Your task to perform on an android device: Open privacy settings Image 0: 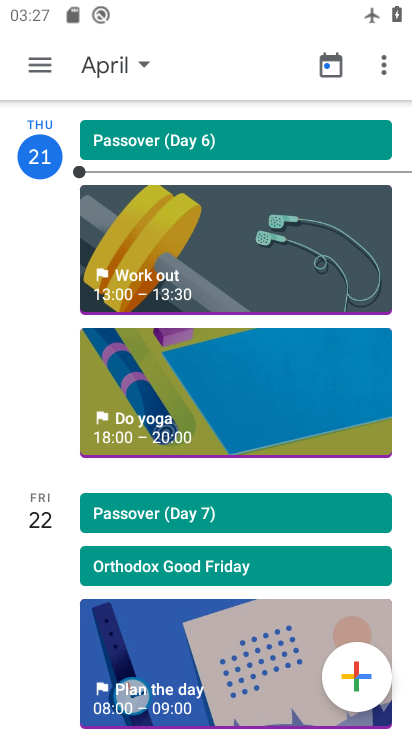
Step 0: press home button
Your task to perform on an android device: Open privacy settings Image 1: 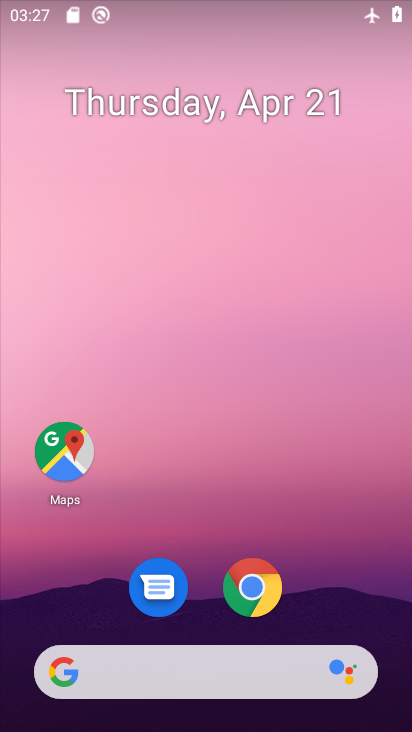
Step 1: drag from (339, 601) to (351, 122)
Your task to perform on an android device: Open privacy settings Image 2: 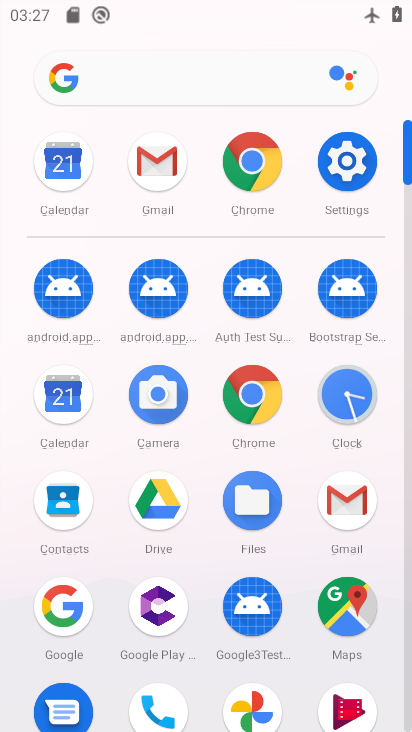
Step 2: click (361, 168)
Your task to perform on an android device: Open privacy settings Image 3: 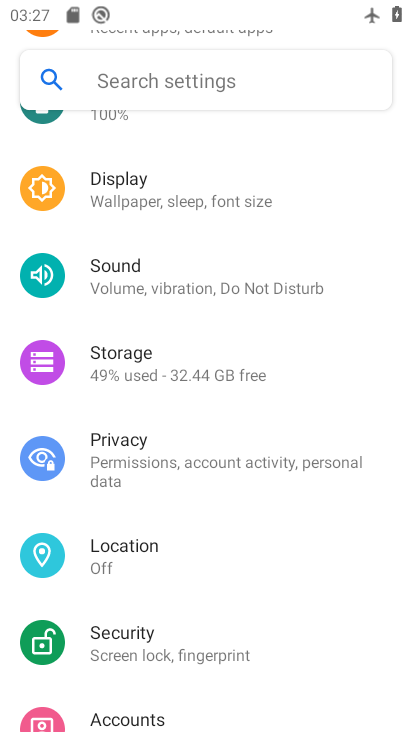
Step 3: drag from (372, 275) to (369, 456)
Your task to perform on an android device: Open privacy settings Image 4: 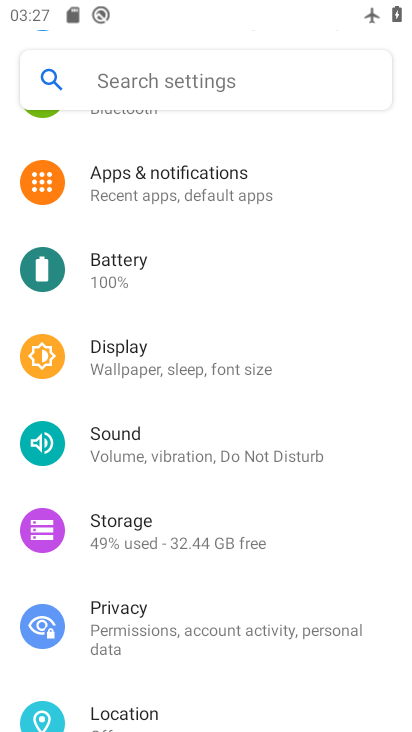
Step 4: drag from (362, 234) to (365, 438)
Your task to perform on an android device: Open privacy settings Image 5: 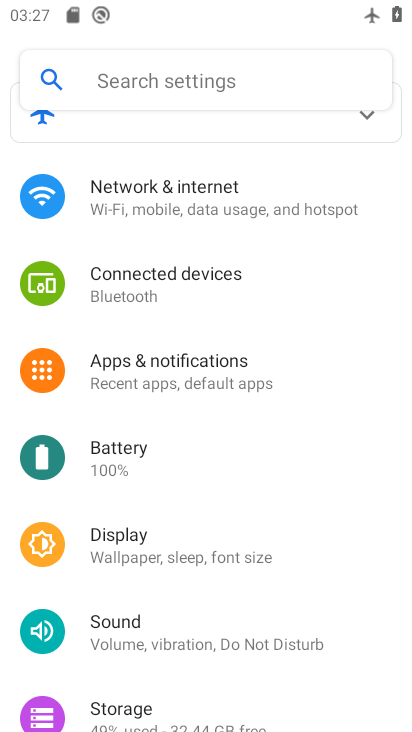
Step 5: drag from (363, 280) to (366, 446)
Your task to perform on an android device: Open privacy settings Image 6: 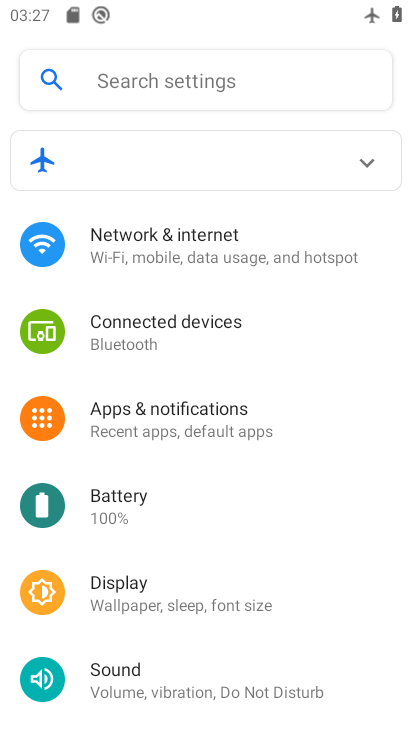
Step 6: drag from (355, 541) to (359, 369)
Your task to perform on an android device: Open privacy settings Image 7: 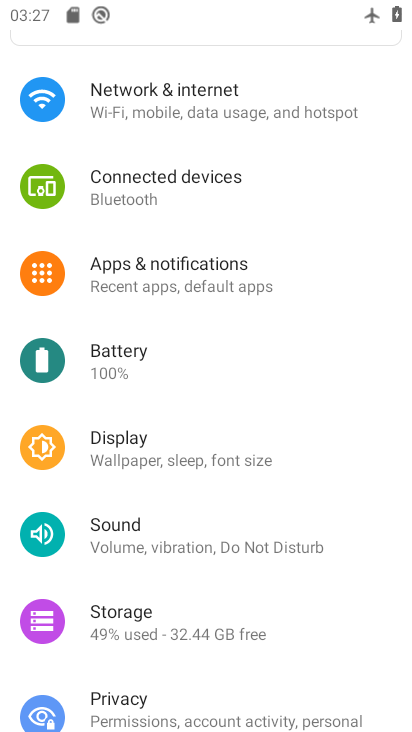
Step 7: drag from (353, 572) to (347, 377)
Your task to perform on an android device: Open privacy settings Image 8: 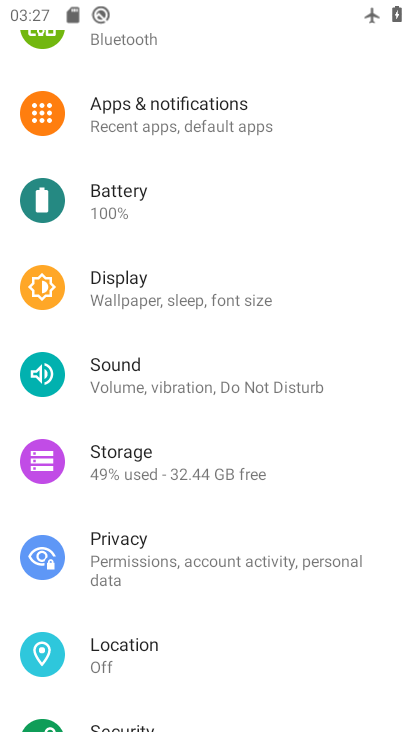
Step 8: drag from (341, 634) to (367, 451)
Your task to perform on an android device: Open privacy settings Image 9: 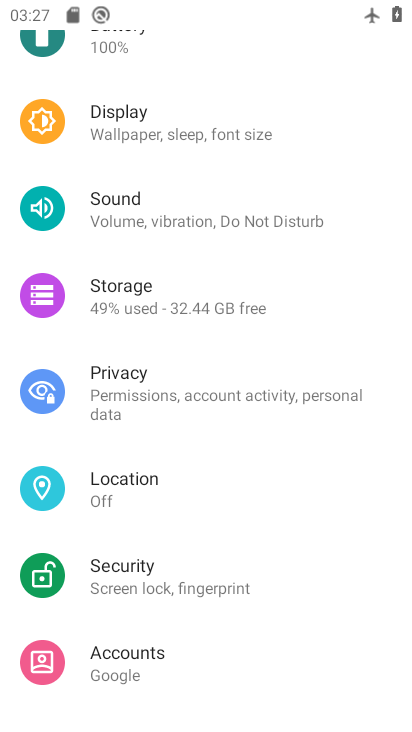
Step 9: drag from (364, 595) to (363, 431)
Your task to perform on an android device: Open privacy settings Image 10: 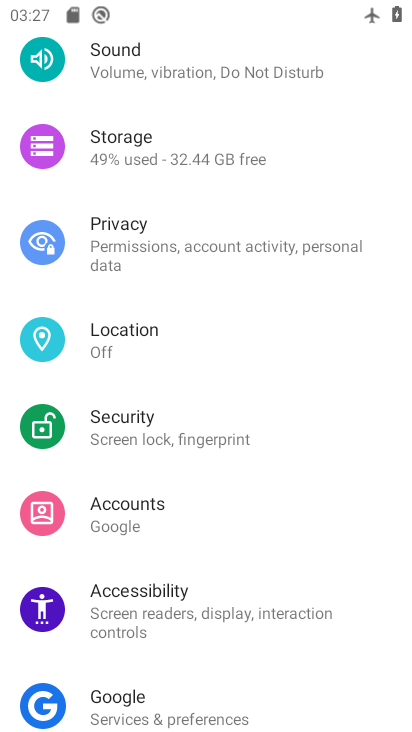
Step 10: drag from (353, 644) to (359, 431)
Your task to perform on an android device: Open privacy settings Image 11: 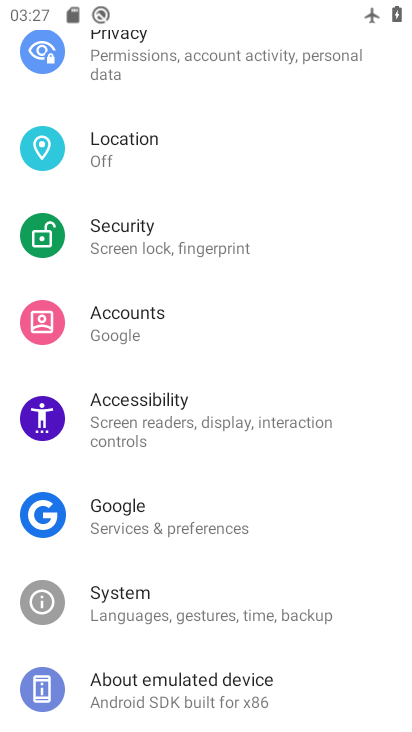
Step 11: drag from (354, 660) to (365, 489)
Your task to perform on an android device: Open privacy settings Image 12: 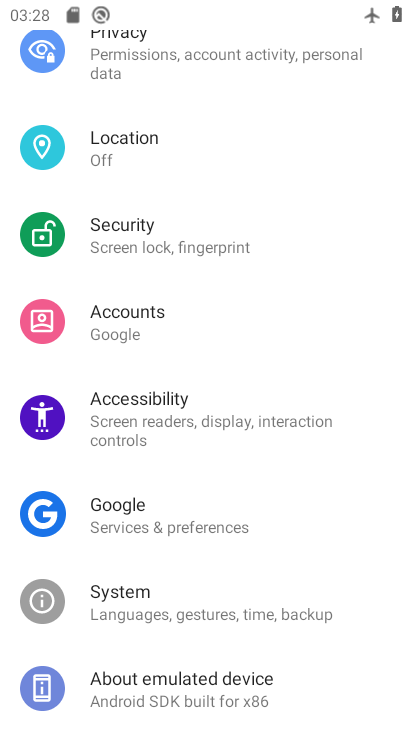
Step 12: drag from (370, 338) to (372, 486)
Your task to perform on an android device: Open privacy settings Image 13: 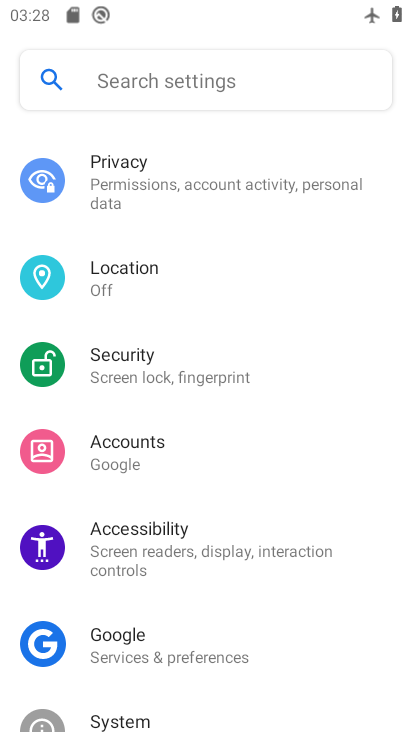
Step 13: drag from (365, 307) to (365, 471)
Your task to perform on an android device: Open privacy settings Image 14: 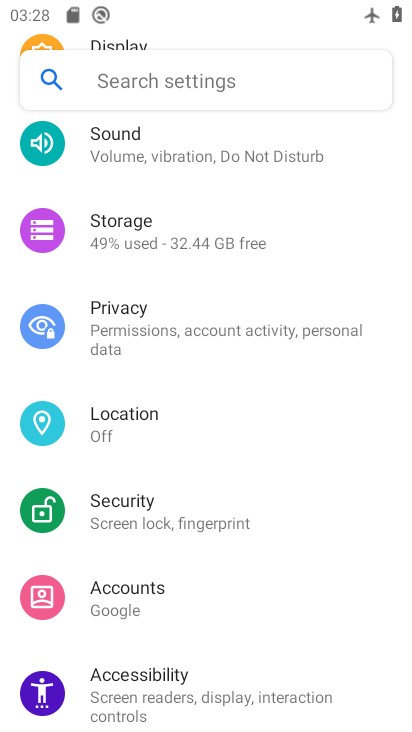
Step 14: drag from (376, 281) to (358, 514)
Your task to perform on an android device: Open privacy settings Image 15: 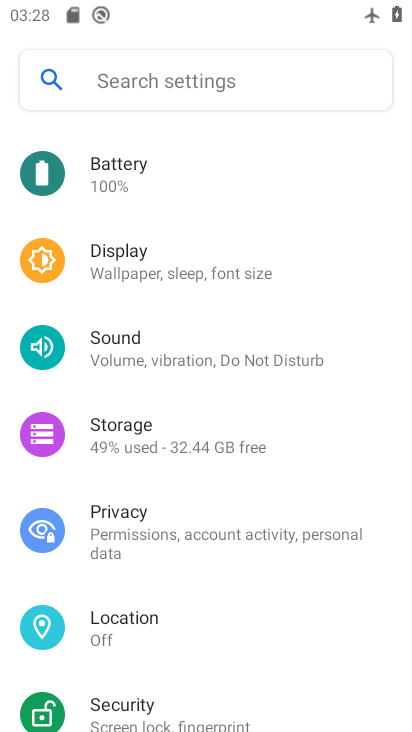
Step 15: click (278, 526)
Your task to perform on an android device: Open privacy settings Image 16: 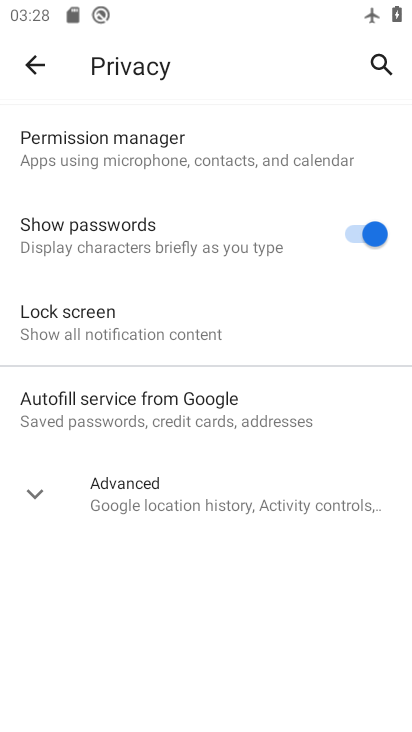
Step 16: task complete